Your task to perform on an android device: star an email in the gmail app Image 0: 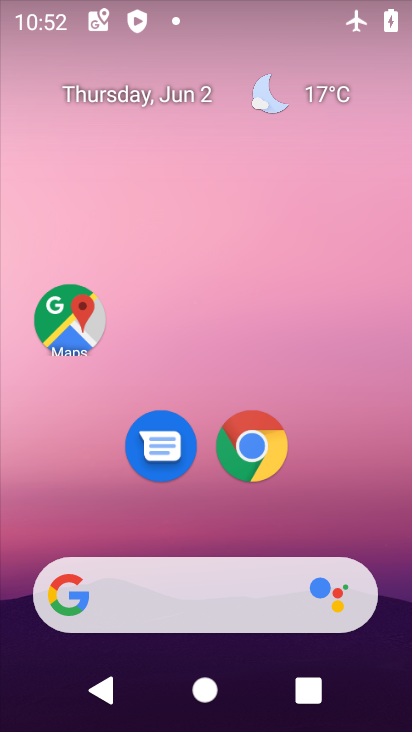
Step 0: drag from (371, 520) to (381, 167)
Your task to perform on an android device: star an email in the gmail app Image 1: 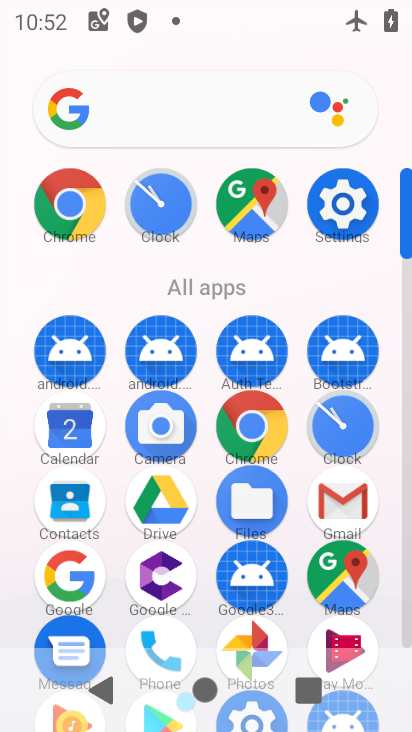
Step 1: click (354, 498)
Your task to perform on an android device: star an email in the gmail app Image 2: 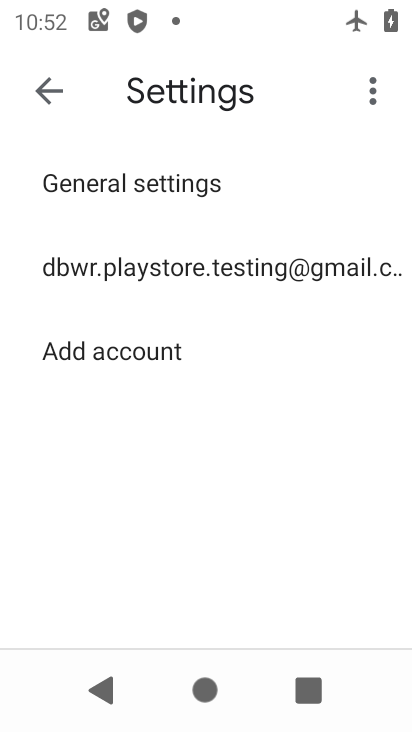
Step 2: press back button
Your task to perform on an android device: star an email in the gmail app Image 3: 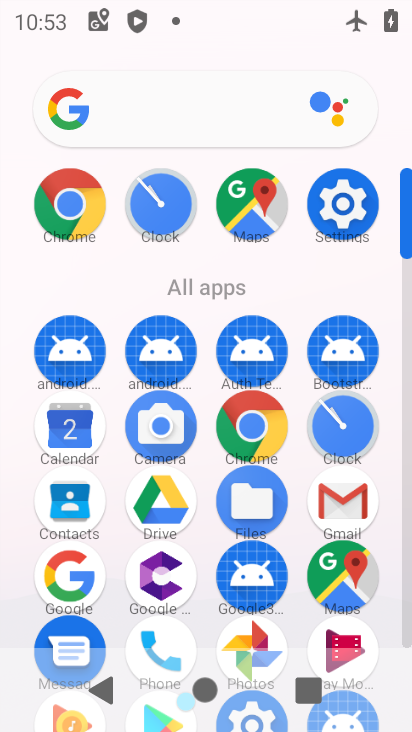
Step 3: click (333, 496)
Your task to perform on an android device: star an email in the gmail app Image 4: 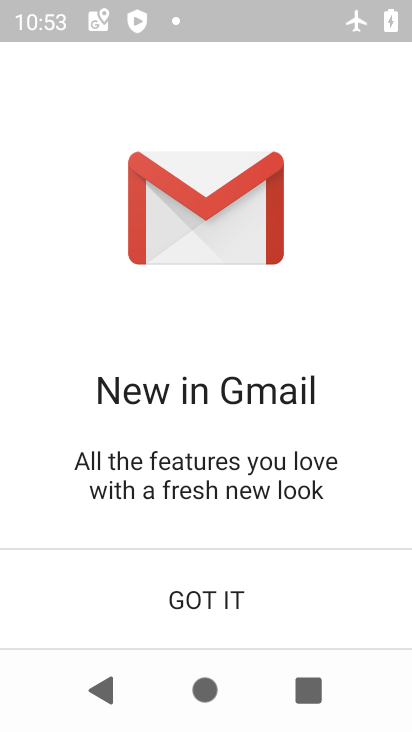
Step 4: click (251, 580)
Your task to perform on an android device: star an email in the gmail app Image 5: 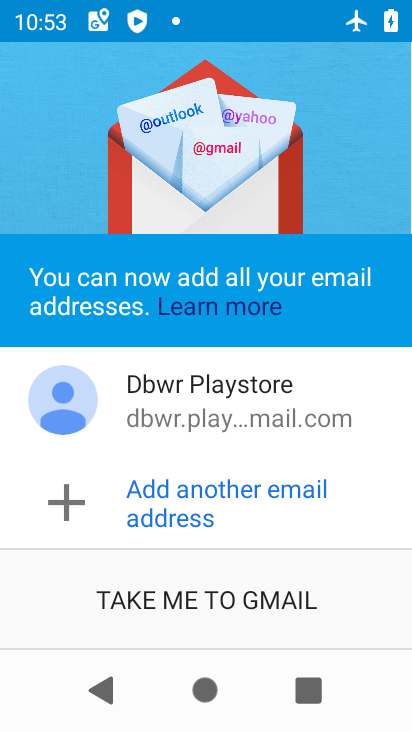
Step 5: click (223, 605)
Your task to perform on an android device: star an email in the gmail app Image 6: 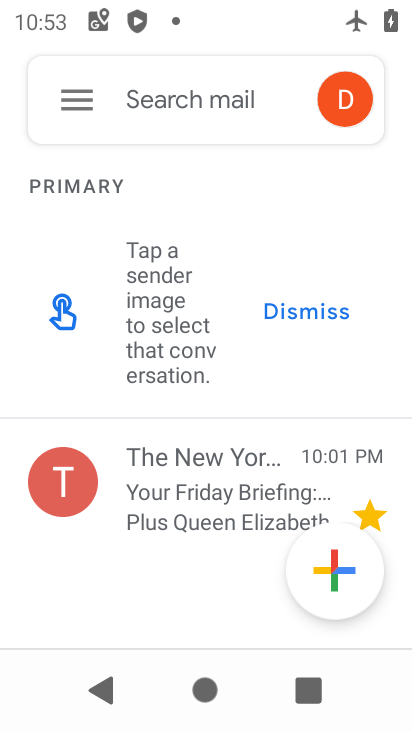
Step 6: click (256, 491)
Your task to perform on an android device: star an email in the gmail app Image 7: 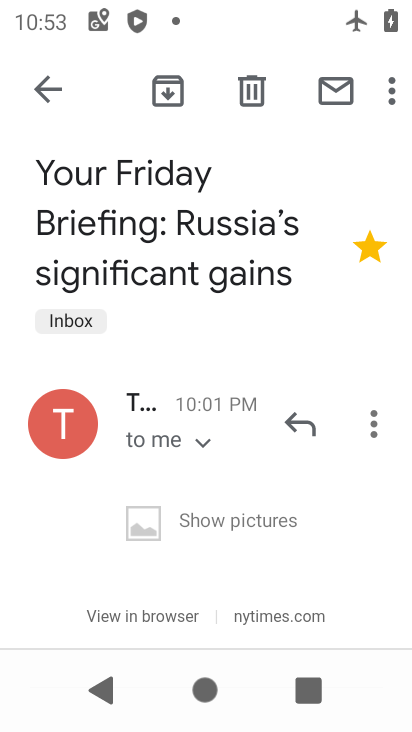
Step 7: task complete